Your task to perform on an android device: turn off location history Image 0: 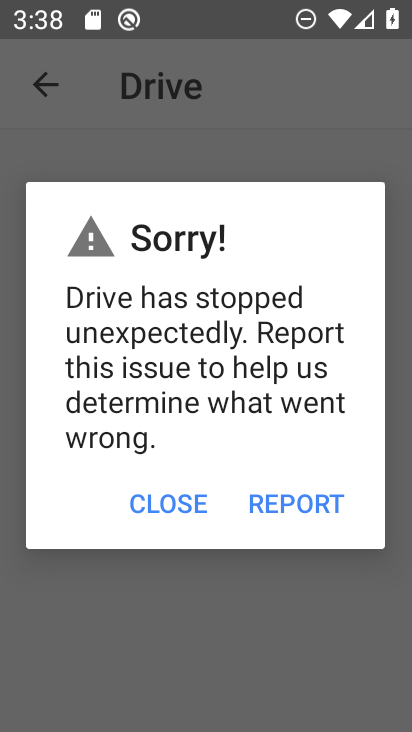
Step 0: press home button
Your task to perform on an android device: turn off location history Image 1: 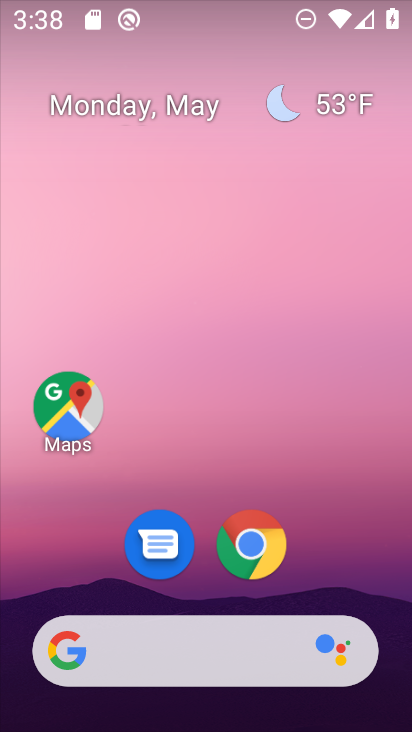
Step 1: drag from (150, 728) to (97, 34)
Your task to perform on an android device: turn off location history Image 2: 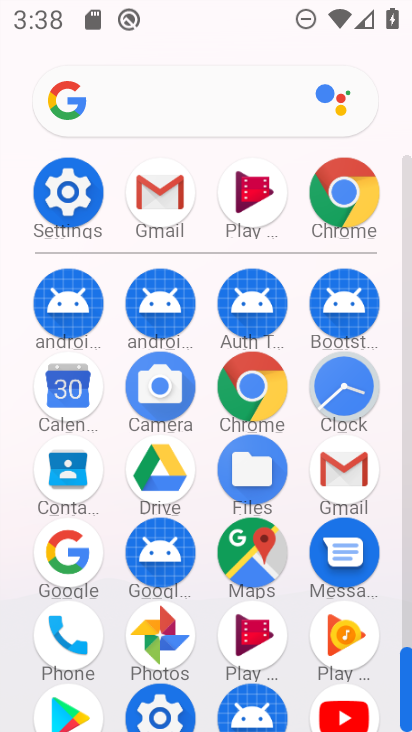
Step 2: click (73, 200)
Your task to perform on an android device: turn off location history Image 3: 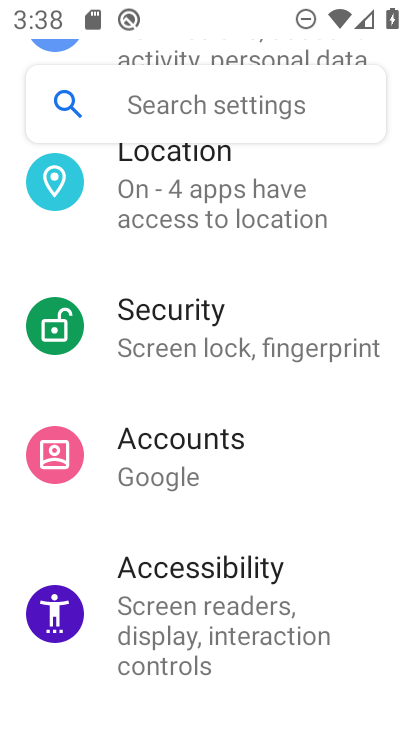
Step 3: click (212, 201)
Your task to perform on an android device: turn off location history Image 4: 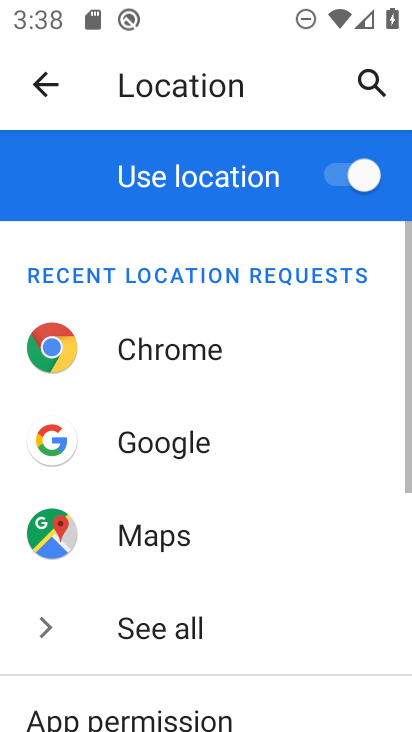
Step 4: drag from (300, 658) to (282, 261)
Your task to perform on an android device: turn off location history Image 5: 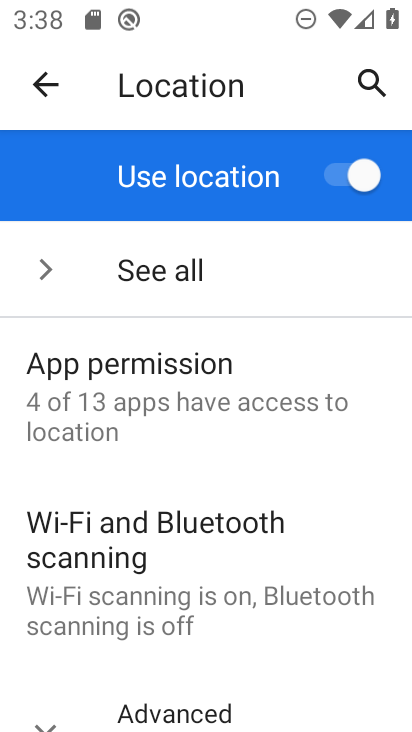
Step 5: drag from (310, 628) to (338, 237)
Your task to perform on an android device: turn off location history Image 6: 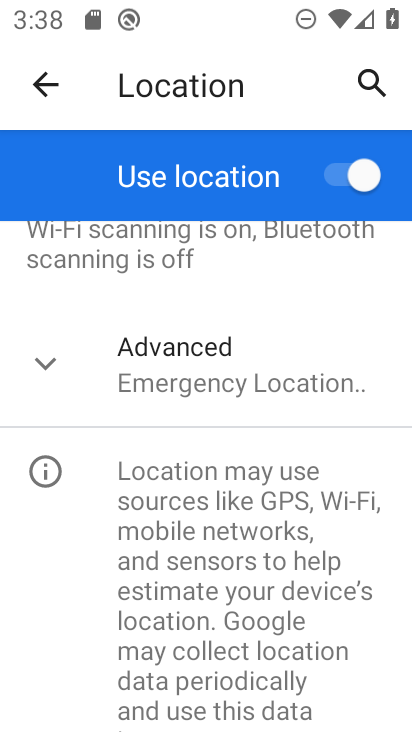
Step 6: click (203, 390)
Your task to perform on an android device: turn off location history Image 7: 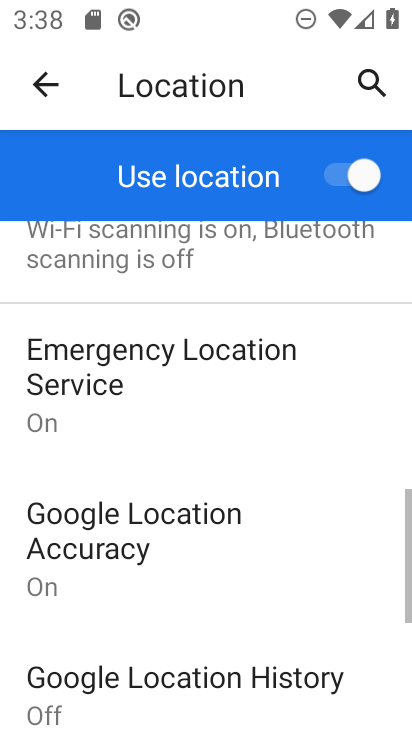
Step 7: drag from (313, 590) to (291, 337)
Your task to perform on an android device: turn off location history Image 8: 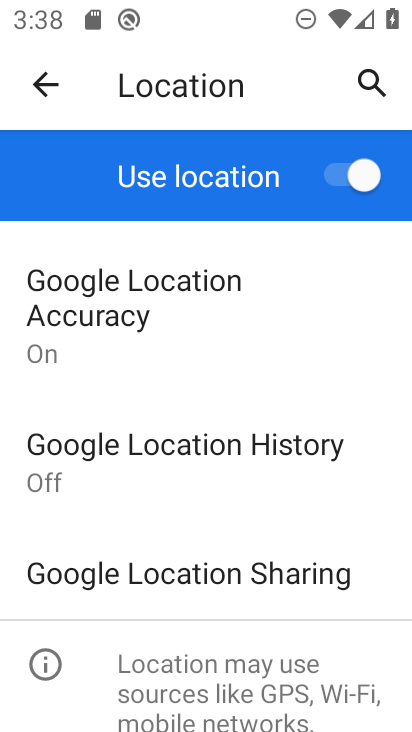
Step 8: click (165, 453)
Your task to perform on an android device: turn off location history Image 9: 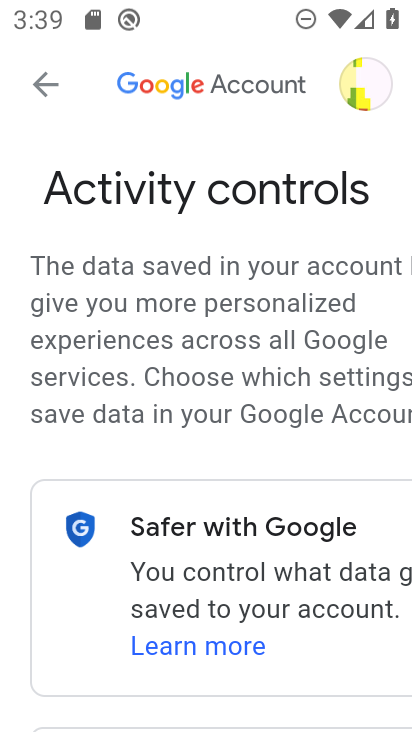
Step 9: task complete